Your task to perform on an android device: Open Google Chrome and open the bookmarks view Image 0: 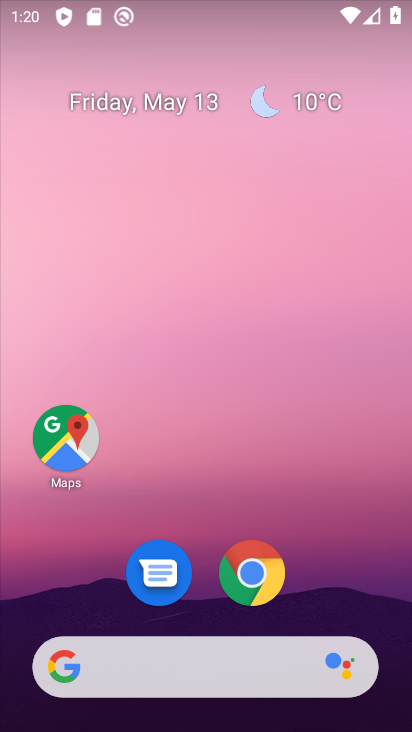
Step 0: drag from (315, 473) to (252, 0)
Your task to perform on an android device: Open Google Chrome and open the bookmarks view Image 1: 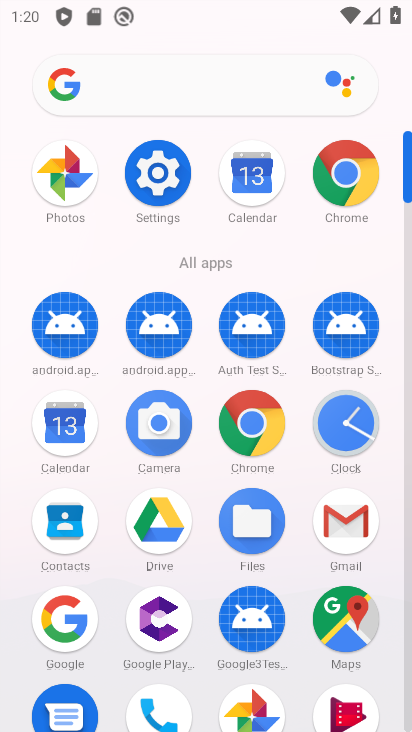
Step 1: drag from (18, 532) to (33, 267)
Your task to perform on an android device: Open Google Chrome and open the bookmarks view Image 2: 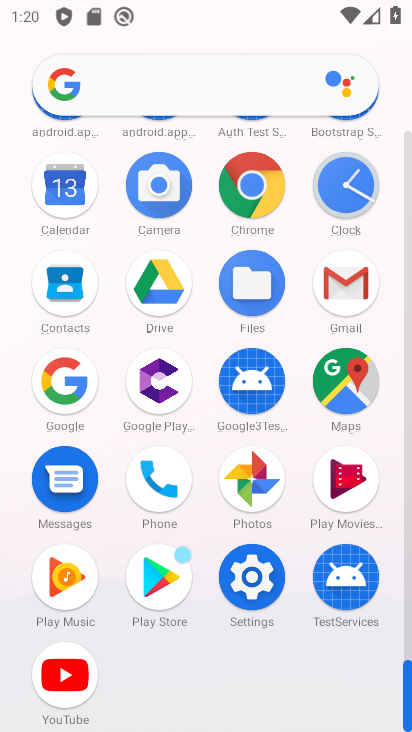
Step 2: click (248, 185)
Your task to perform on an android device: Open Google Chrome and open the bookmarks view Image 3: 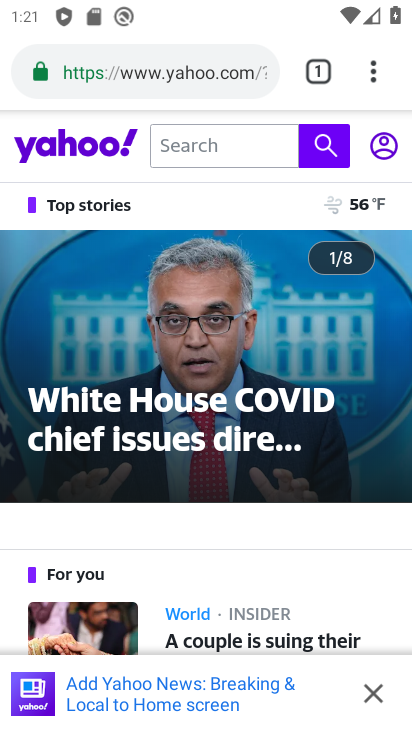
Step 3: task complete